Your task to perform on an android device: Add "acer nitro" to the cart on ebay.com, then select checkout. Image 0: 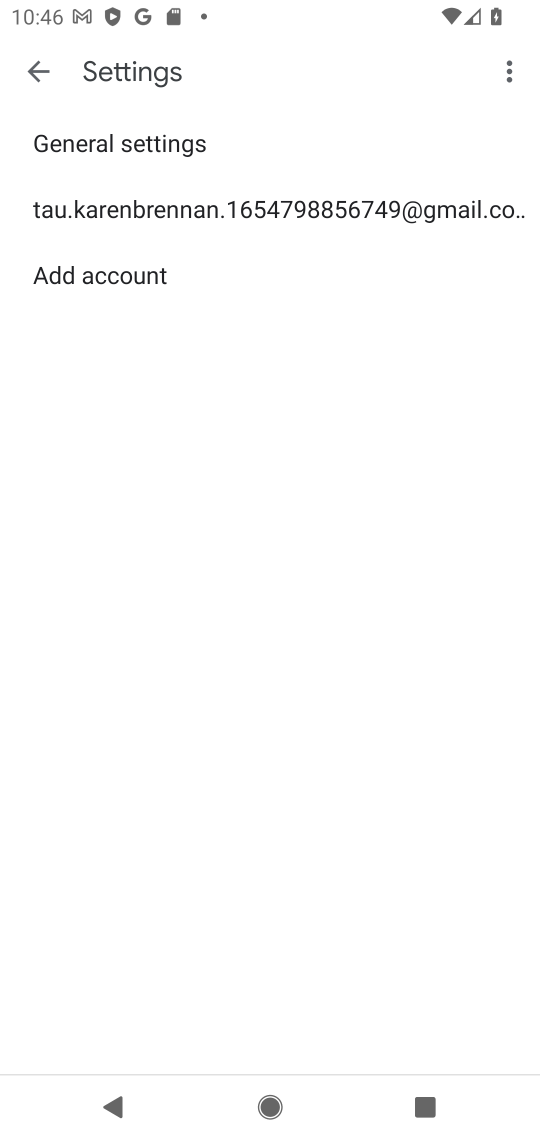
Step 0: press home button
Your task to perform on an android device: Add "acer nitro" to the cart on ebay.com, then select checkout. Image 1: 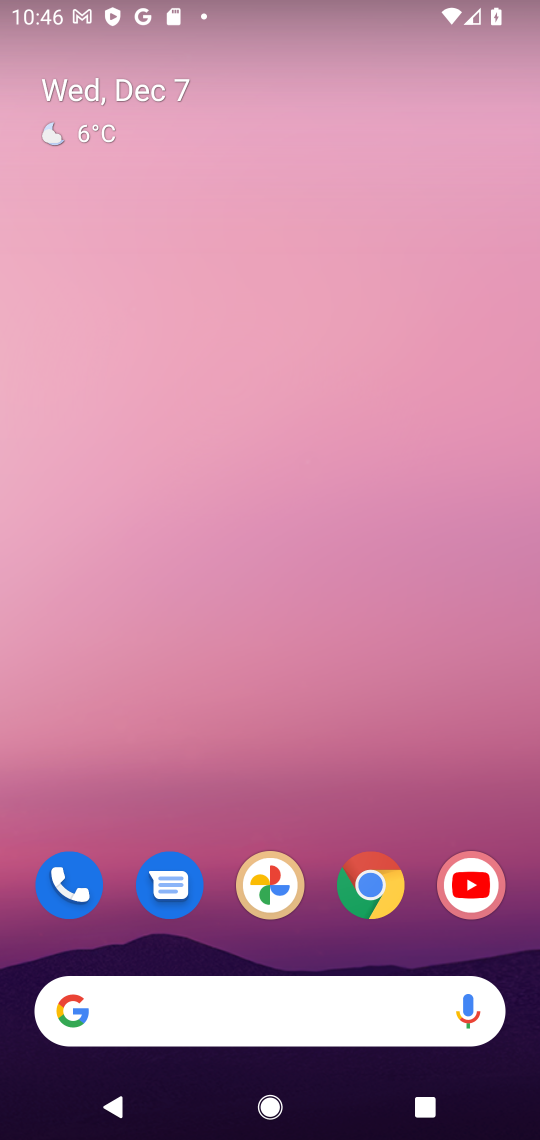
Step 1: click (382, 879)
Your task to perform on an android device: Add "acer nitro" to the cart on ebay.com, then select checkout. Image 2: 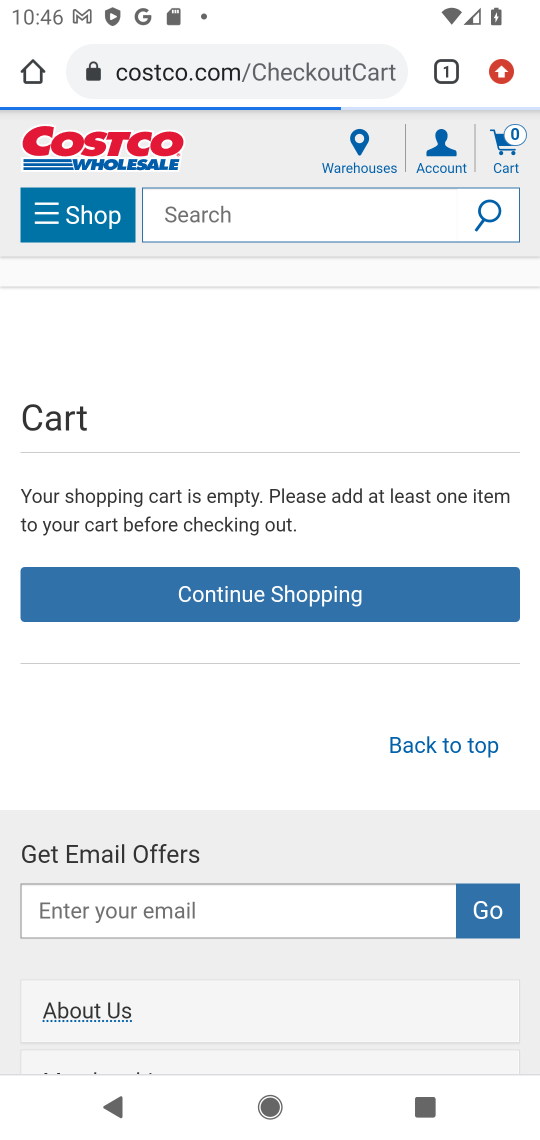
Step 2: click (332, 74)
Your task to perform on an android device: Add "acer nitro" to the cart on ebay.com, then select checkout. Image 3: 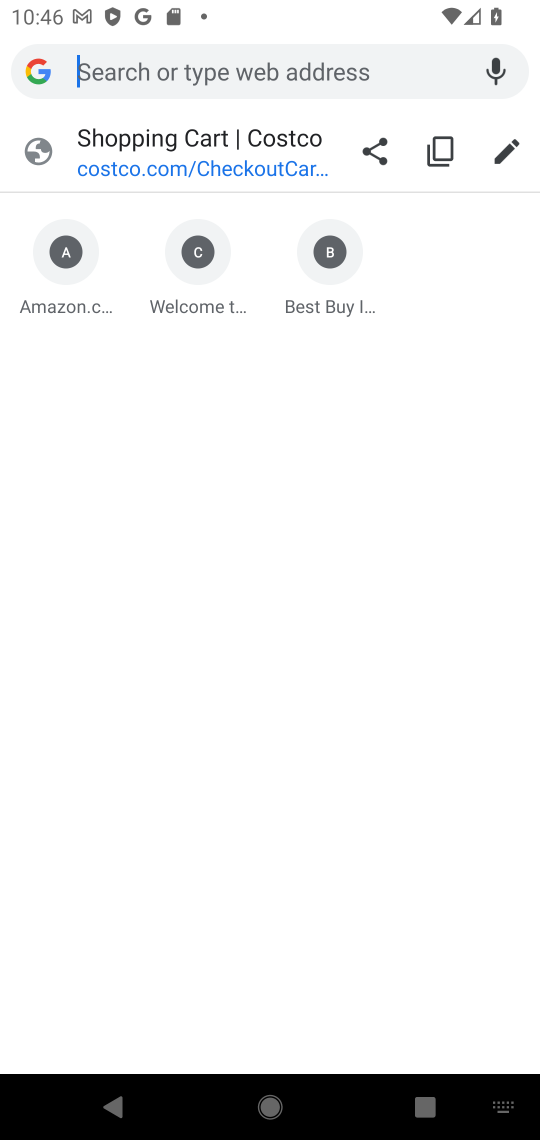
Step 3: type "EBAY"
Your task to perform on an android device: Add "acer nitro" to the cart on ebay.com, then select checkout. Image 4: 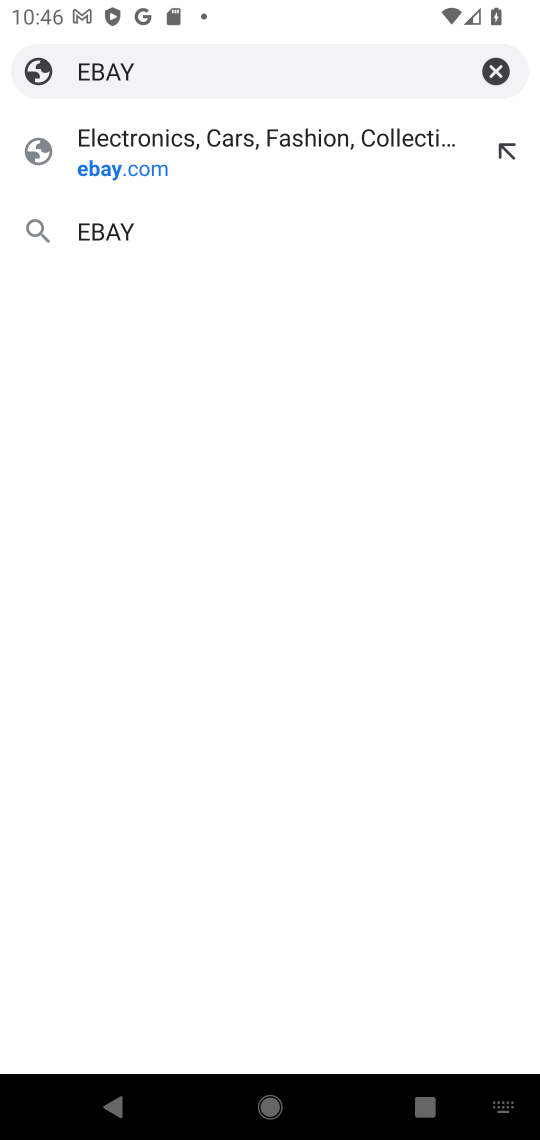
Step 4: click (133, 155)
Your task to perform on an android device: Add "acer nitro" to the cart on ebay.com, then select checkout. Image 5: 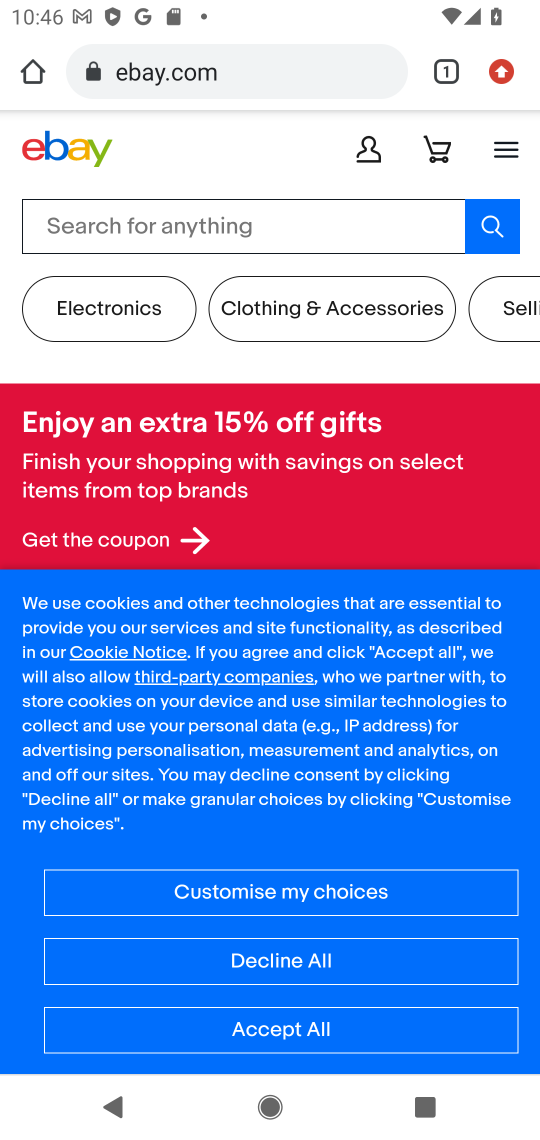
Step 5: click (295, 227)
Your task to perform on an android device: Add "acer nitro" to the cart on ebay.com, then select checkout. Image 6: 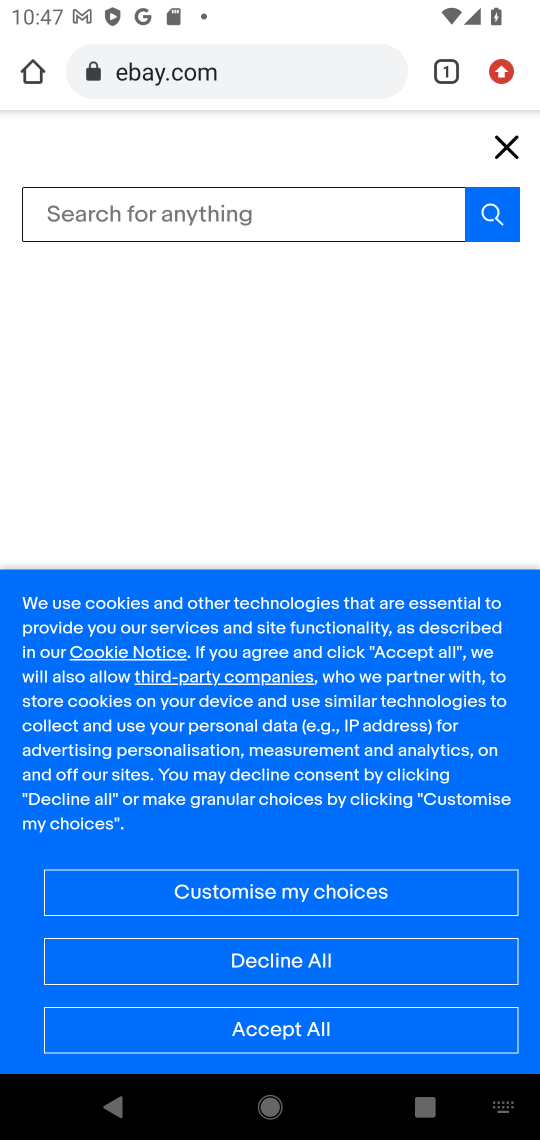
Step 6: click (303, 1029)
Your task to perform on an android device: Add "acer nitro" to the cart on ebay.com, then select checkout. Image 7: 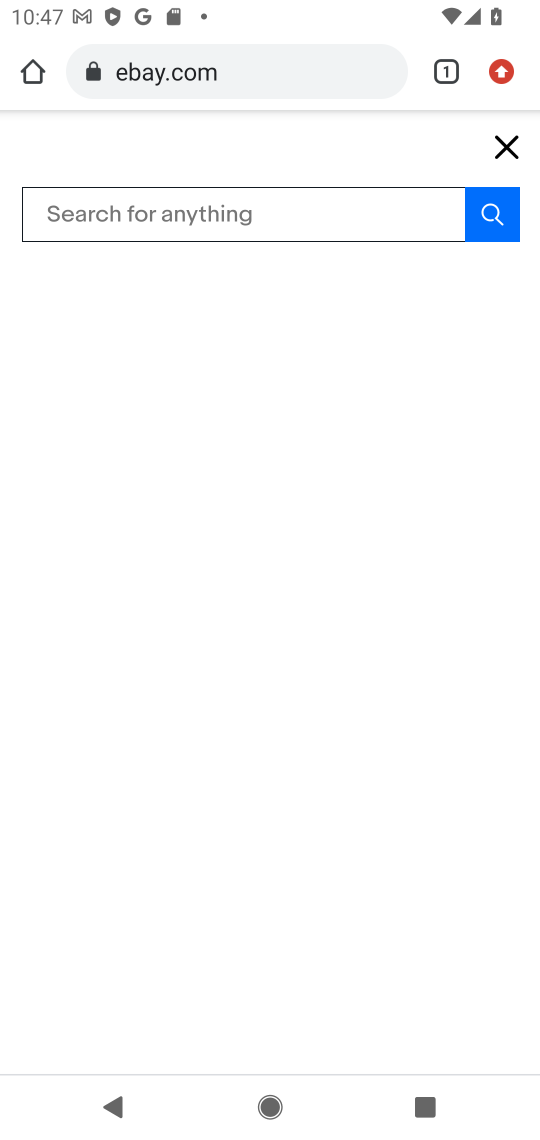
Step 7: click (327, 206)
Your task to perform on an android device: Add "acer nitro" to the cart on ebay.com, then select checkout. Image 8: 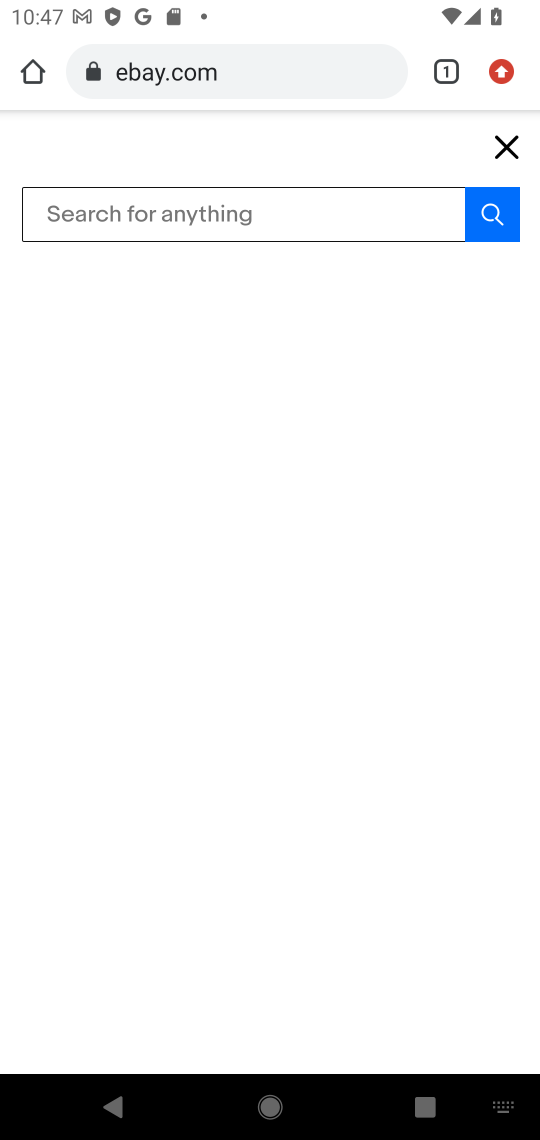
Step 8: type "acer nitro"
Your task to perform on an android device: Add "acer nitro" to the cart on ebay.com, then select checkout. Image 9: 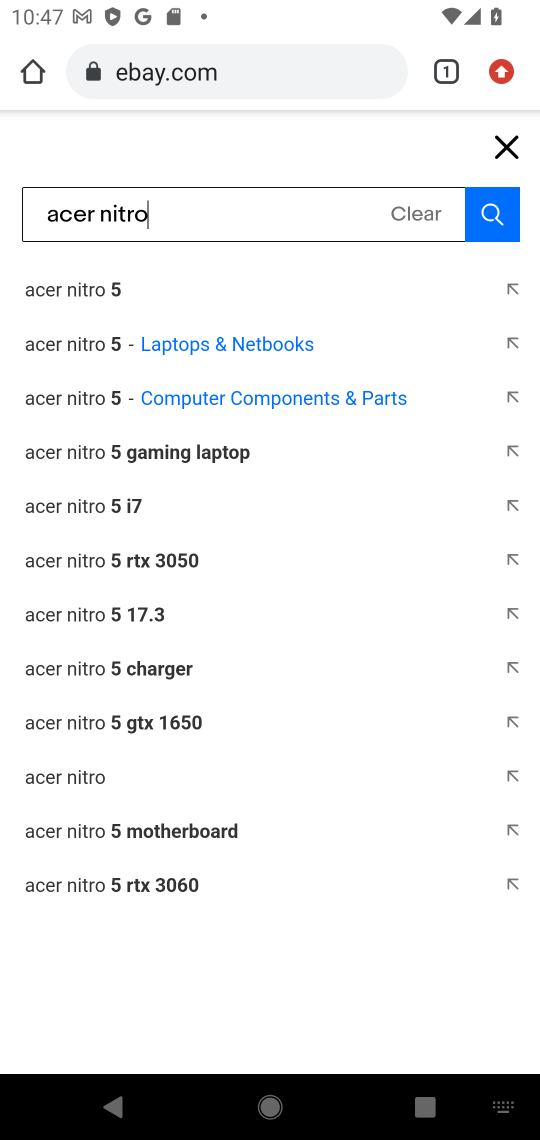
Step 9: click (75, 293)
Your task to perform on an android device: Add "acer nitro" to the cart on ebay.com, then select checkout. Image 10: 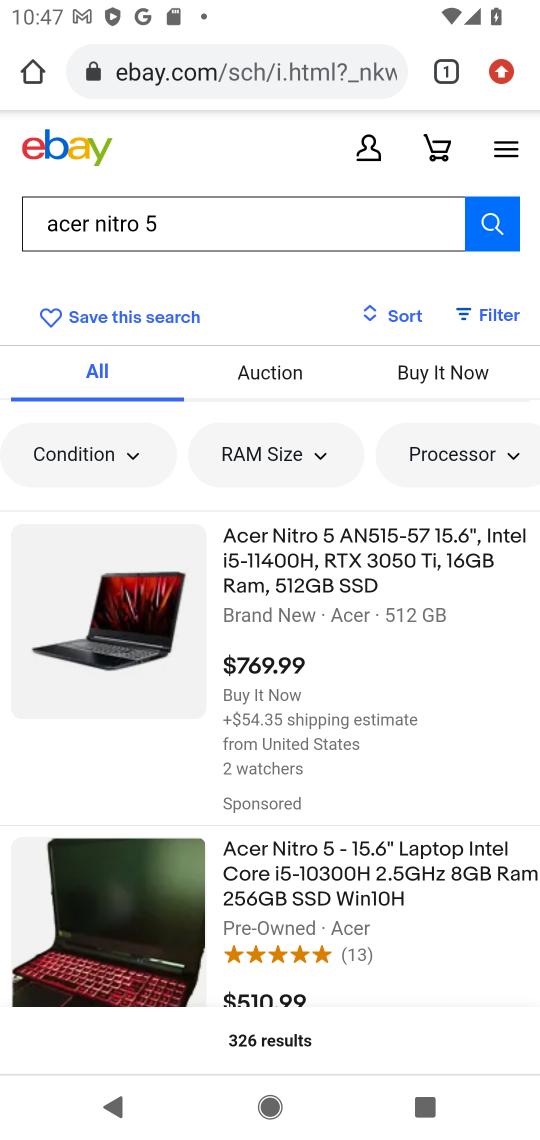
Step 10: click (157, 665)
Your task to perform on an android device: Add "acer nitro" to the cart on ebay.com, then select checkout. Image 11: 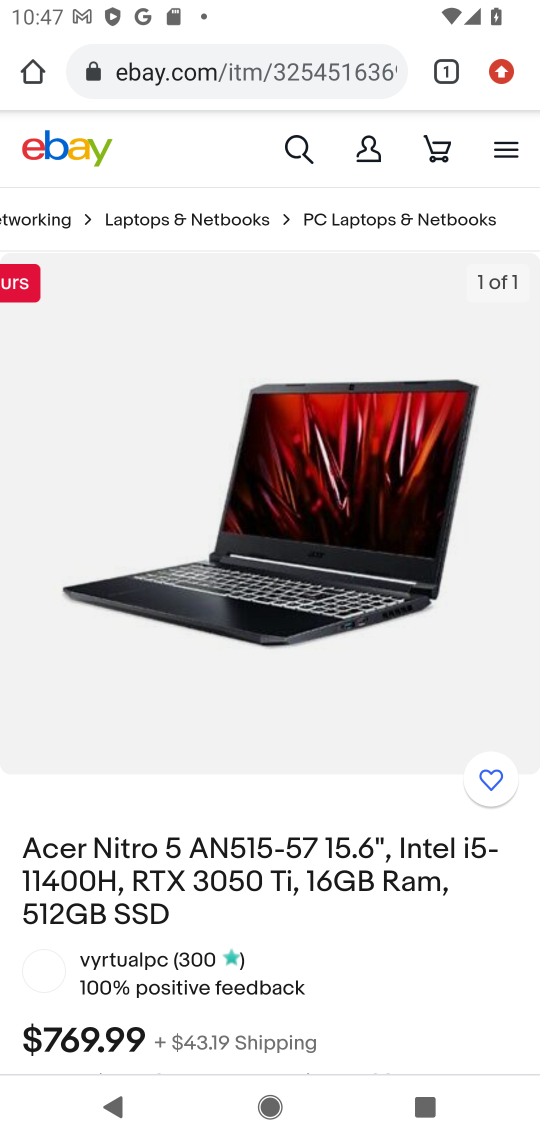
Step 11: drag from (378, 985) to (306, 247)
Your task to perform on an android device: Add "acer nitro" to the cart on ebay.com, then select checkout. Image 12: 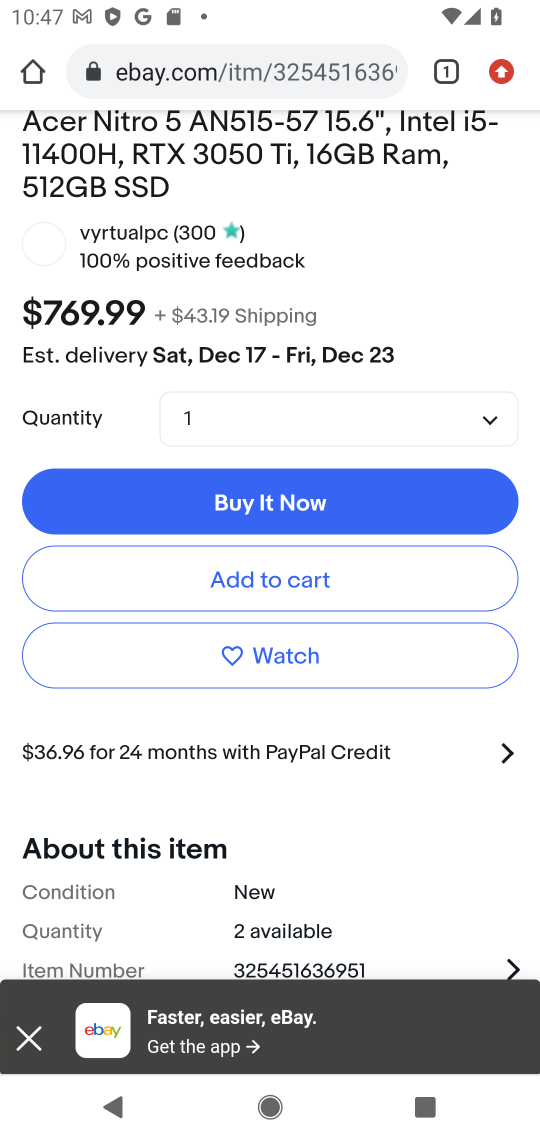
Step 12: click (276, 589)
Your task to perform on an android device: Add "acer nitro" to the cart on ebay.com, then select checkout. Image 13: 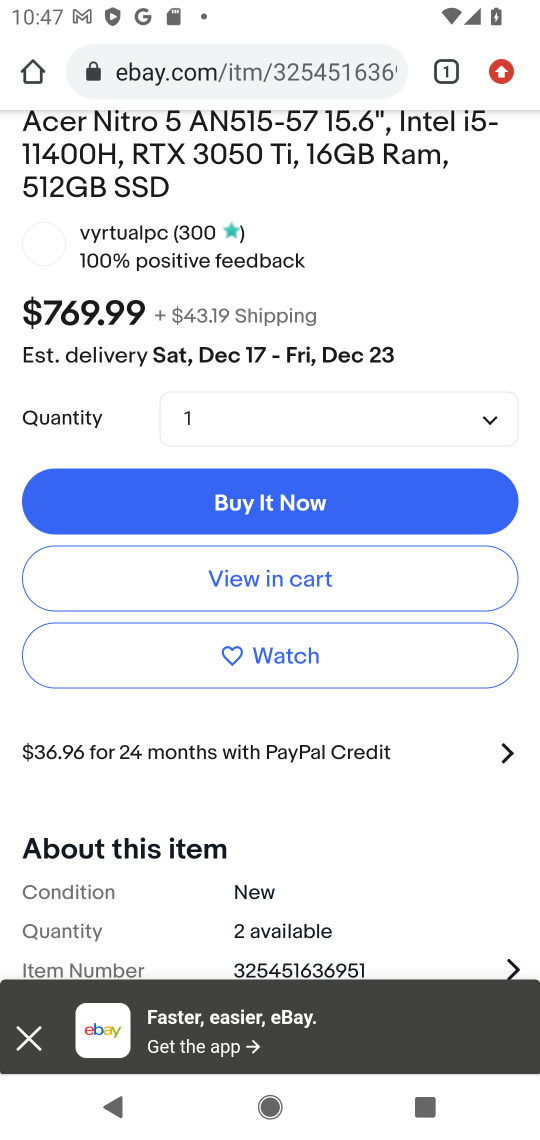
Step 13: click (276, 589)
Your task to perform on an android device: Add "acer nitro" to the cart on ebay.com, then select checkout. Image 14: 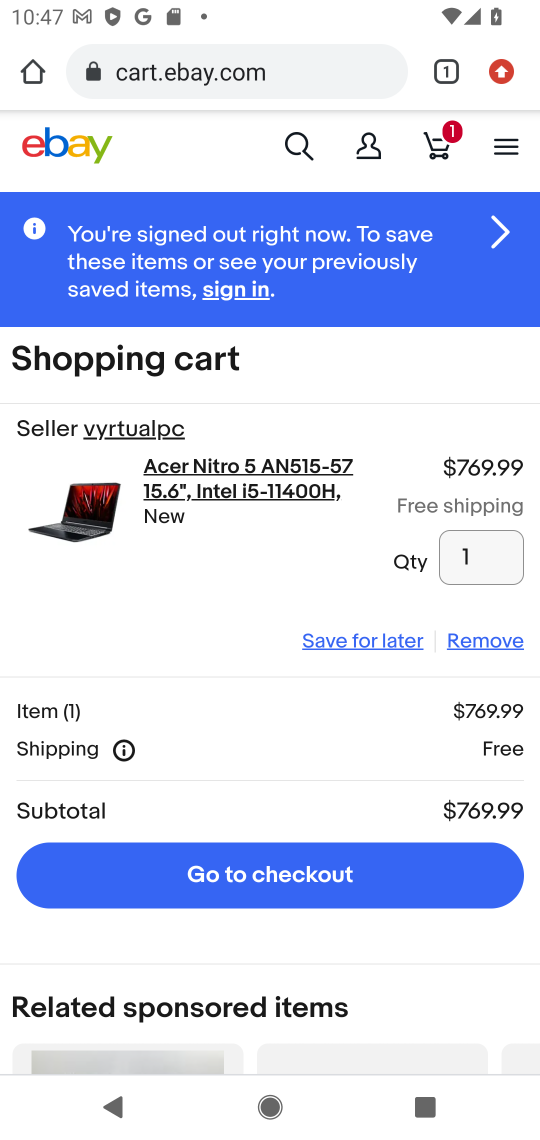
Step 14: click (310, 867)
Your task to perform on an android device: Add "acer nitro" to the cart on ebay.com, then select checkout. Image 15: 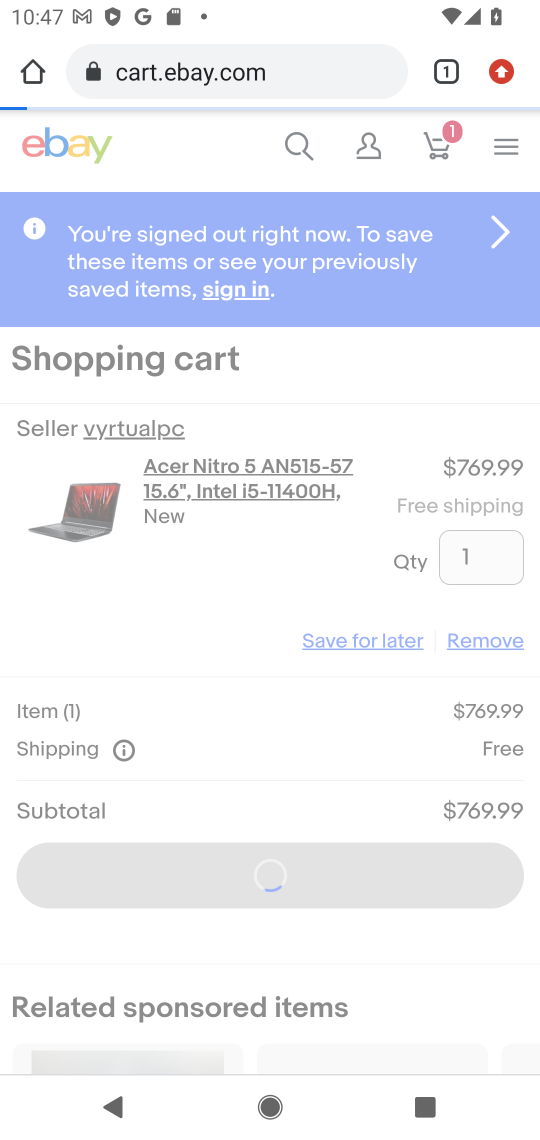
Step 15: task complete